Your task to perform on an android device: turn on improve location accuracy Image 0: 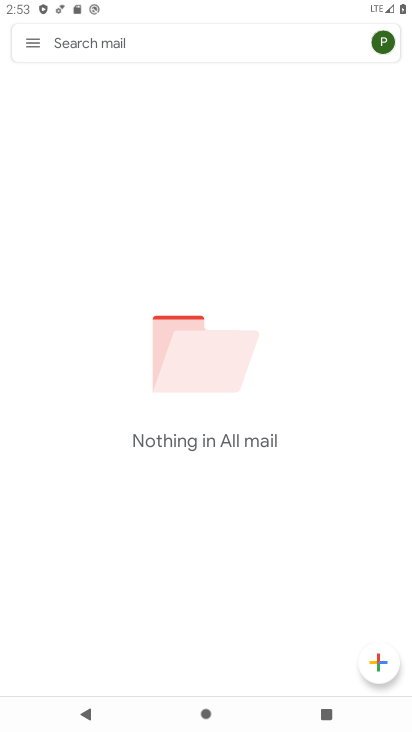
Step 0: press home button
Your task to perform on an android device: turn on improve location accuracy Image 1: 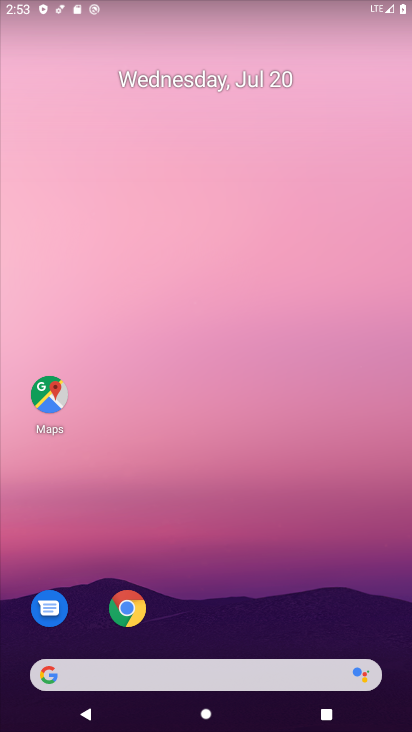
Step 1: drag from (292, 440) to (262, 112)
Your task to perform on an android device: turn on improve location accuracy Image 2: 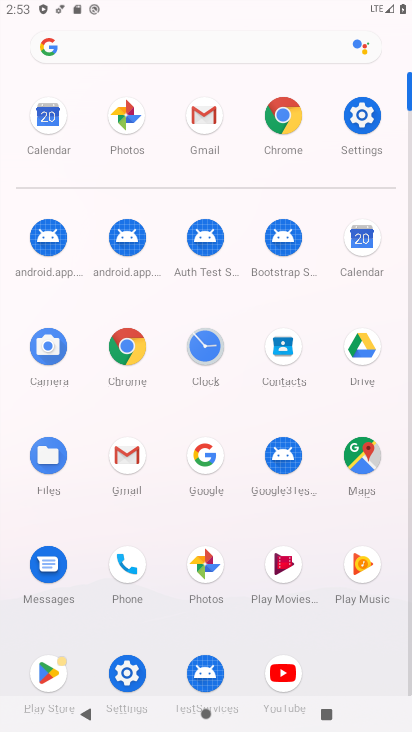
Step 2: click (365, 120)
Your task to perform on an android device: turn on improve location accuracy Image 3: 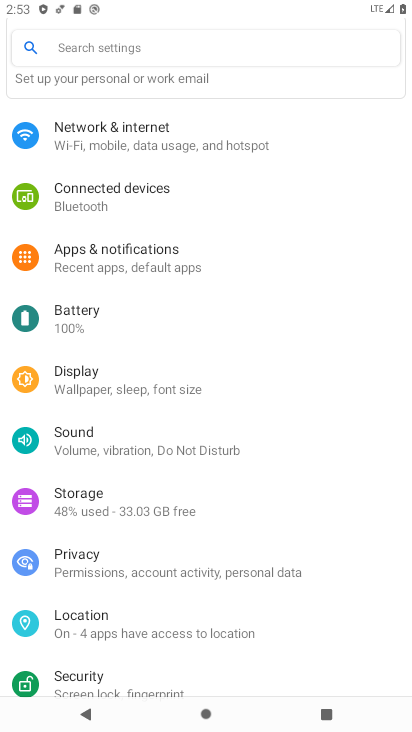
Step 3: drag from (205, 541) to (214, 241)
Your task to perform on an android device: turn on improve location accuracy Image 4: 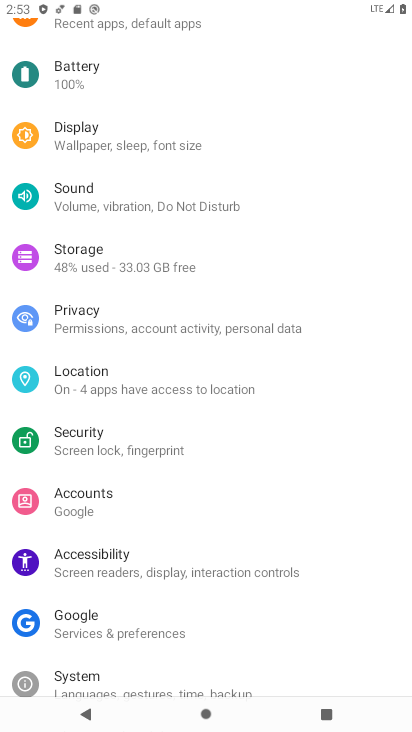
Step 4: click (114, 372)
Your task to perform on an android device: turn on improve location accuracy Image 5: 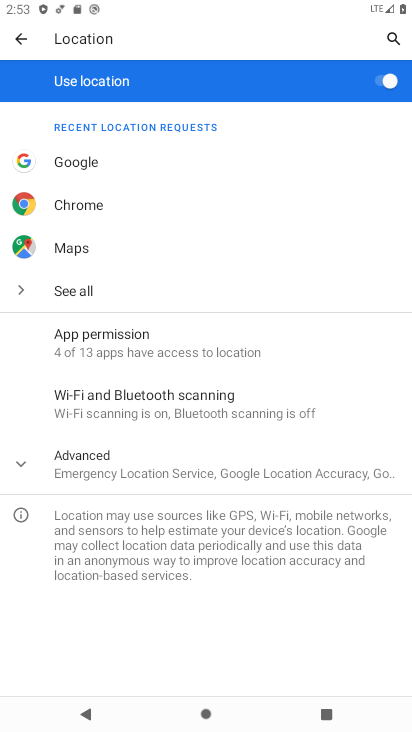
Step 5: click (54, 467)
Your task to perform on an android device: turn on improve location accuracy Image 6: 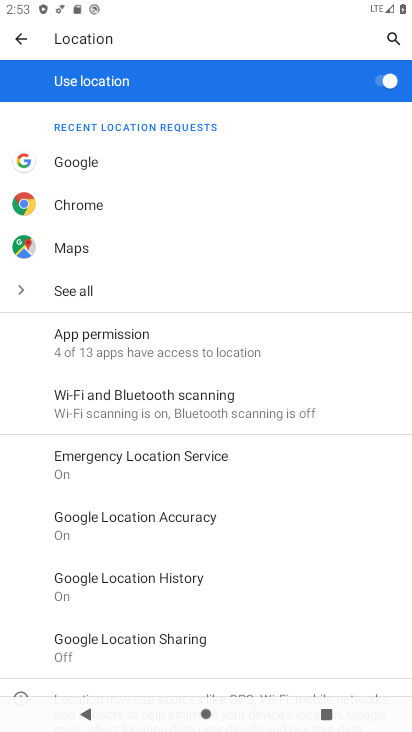
Step 6: click (188, 533)
Your task to perform on an android device: turn on improve location accuracy Image 7: 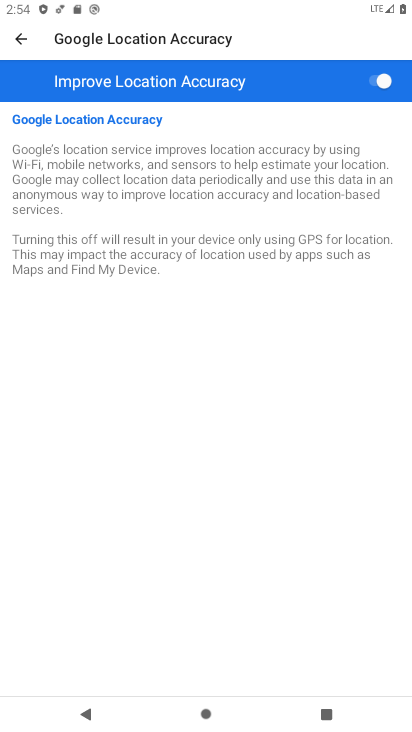
Step 7: task complete